Your task to perform on an android device: clear history in the chrome app Image 0: 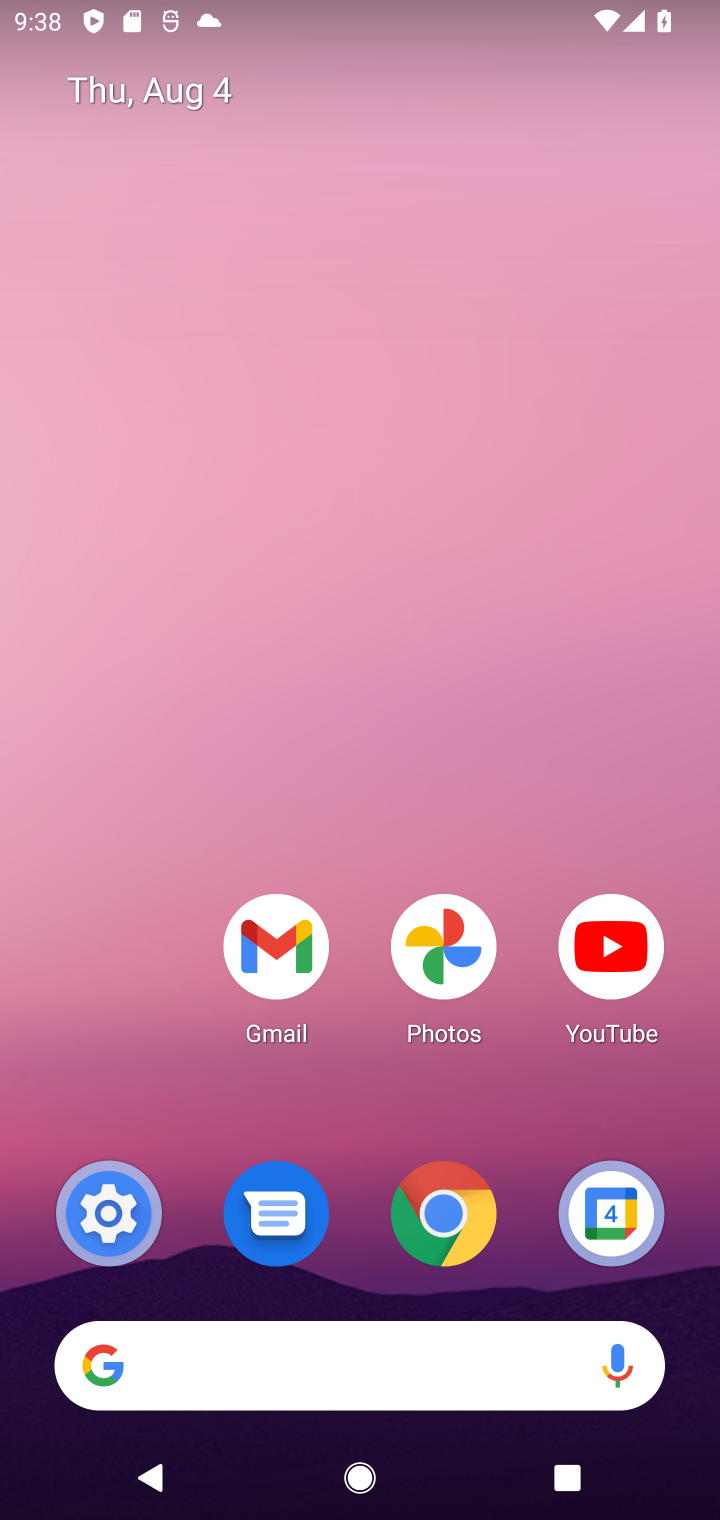
Step 0: drag from (347, 1103) to (455, 14)
Your task to perform on an android device: clear history in the chrome app Image 1: 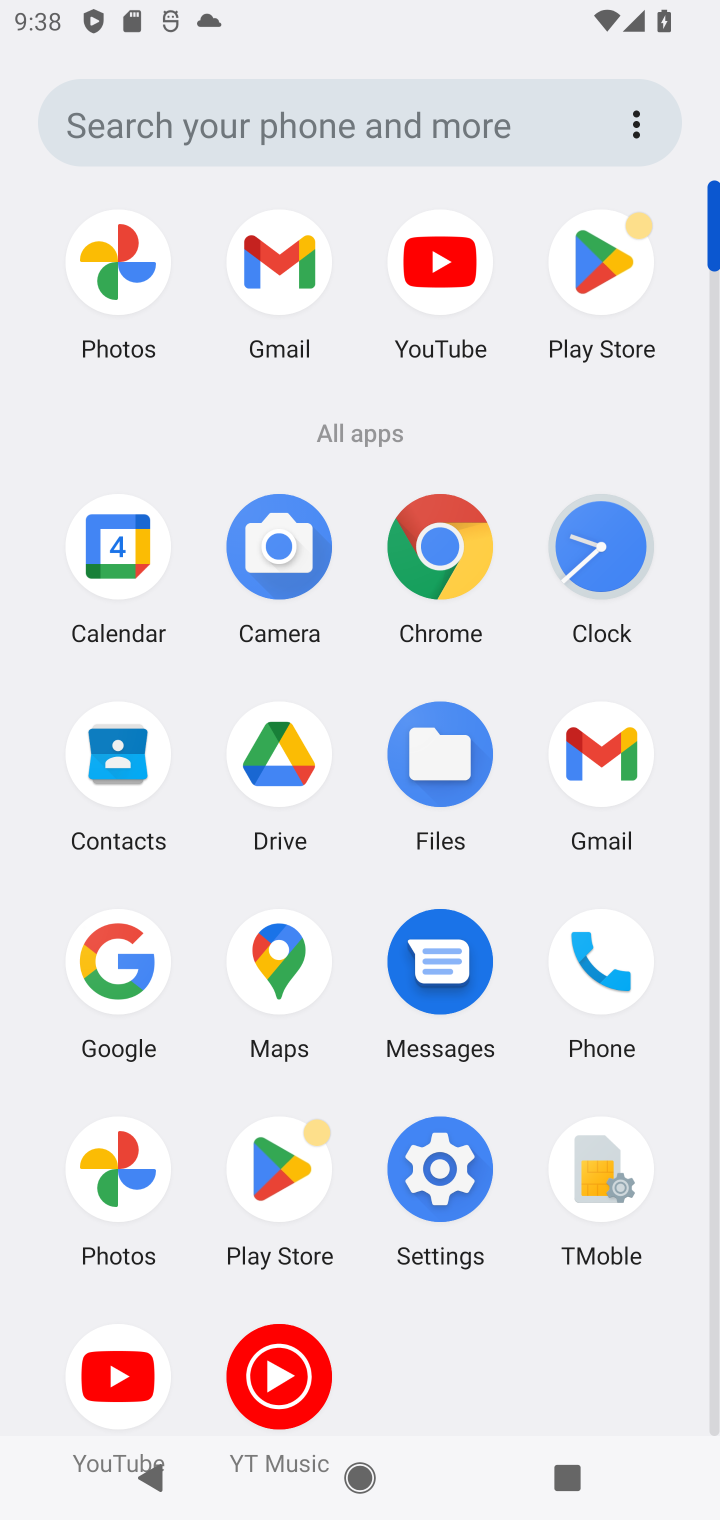
Step 1: click (434, 529)
Your task to perform on an android device: clear history in the chrome app Image 2: 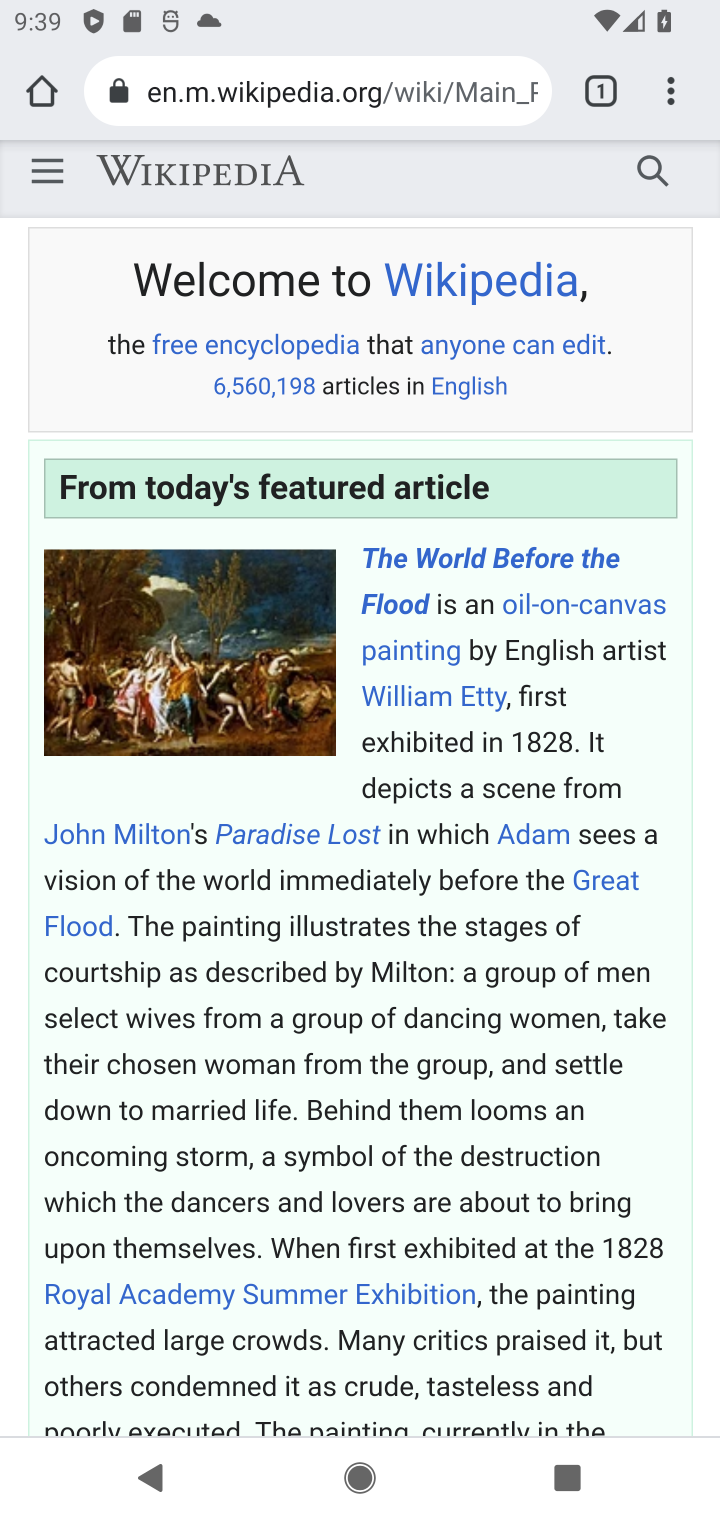
Step 2: click (686, 79)
Your task to perform on an android device: clear history in the chrome app Image 3: 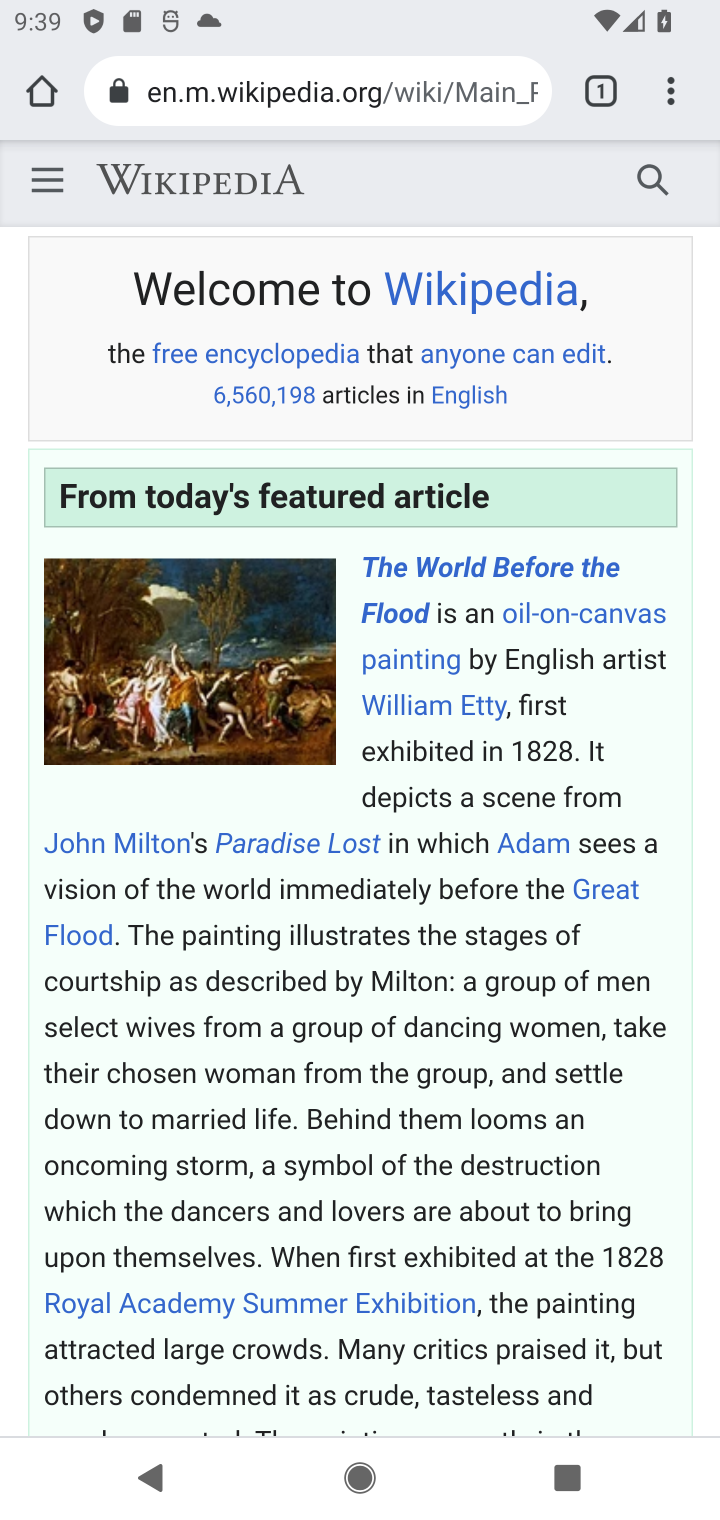
Step 3: click (672, 90)
Your task to perform on an android device: clear history in the chrome app Image 4: 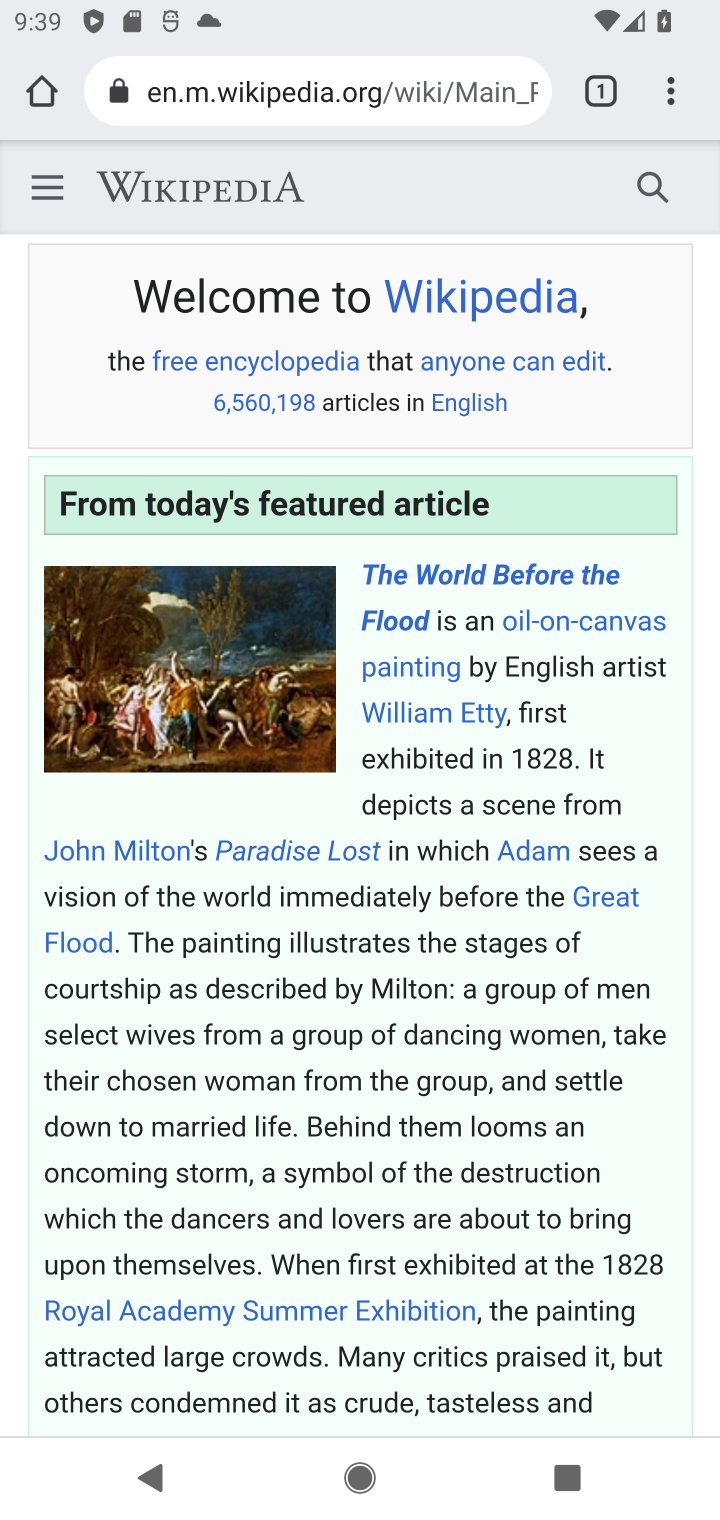
Step 4: click (670, 84)
Your task to perform on an android device: clear history in the chrome app Image 5: 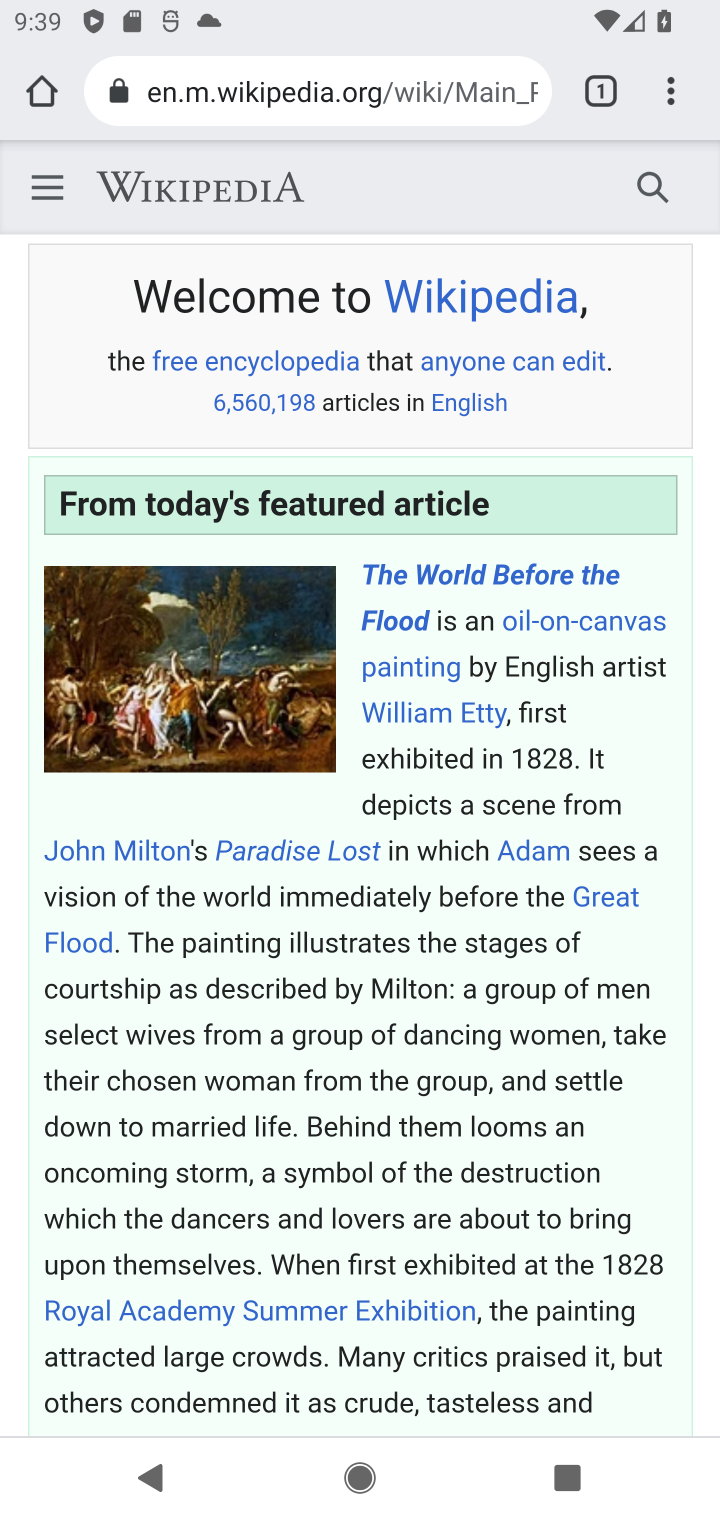
Step 5: click (676, 90)
Your task to perform on an android device: clear history in the chrome app Image 6: 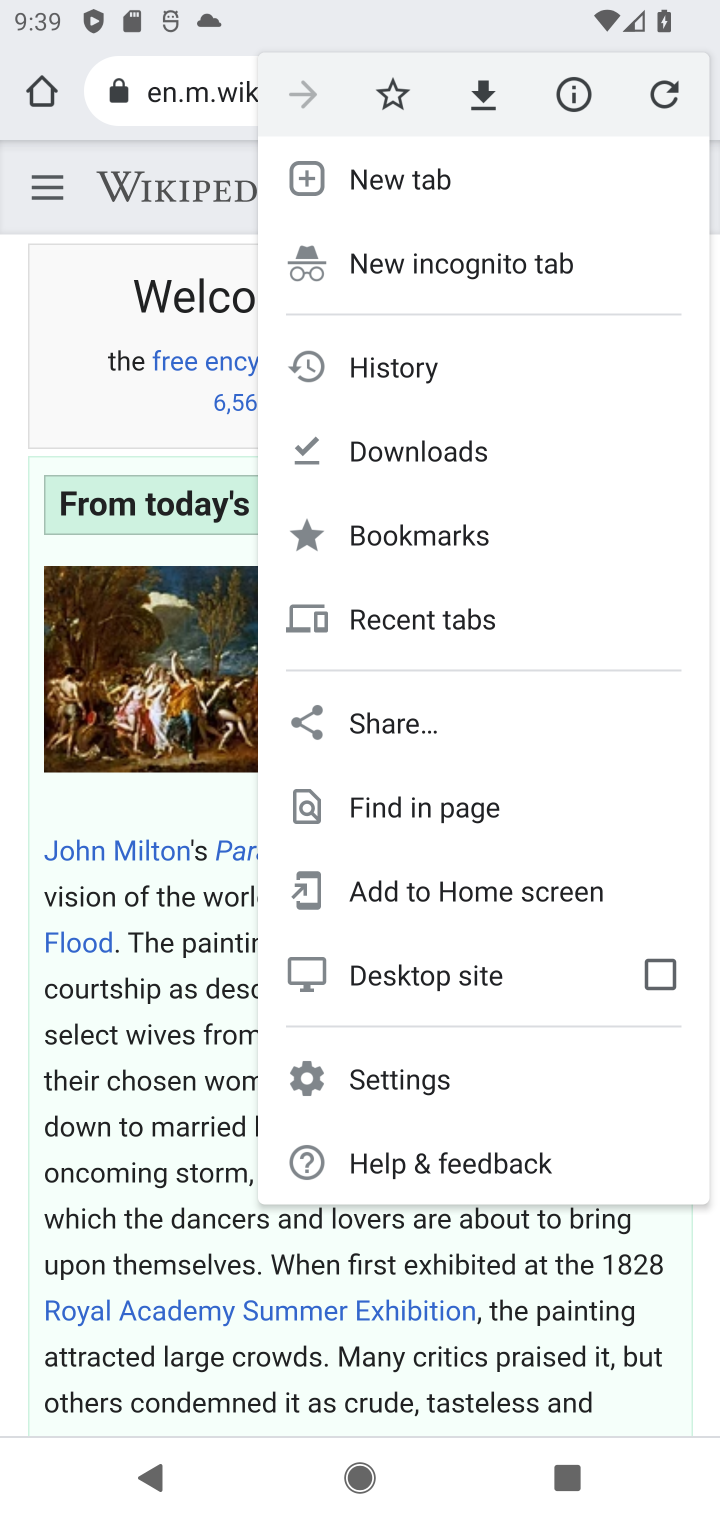
Step 6: click (428, 359)
Your task to perform on an android device: clear history in the chrome app Image 7: 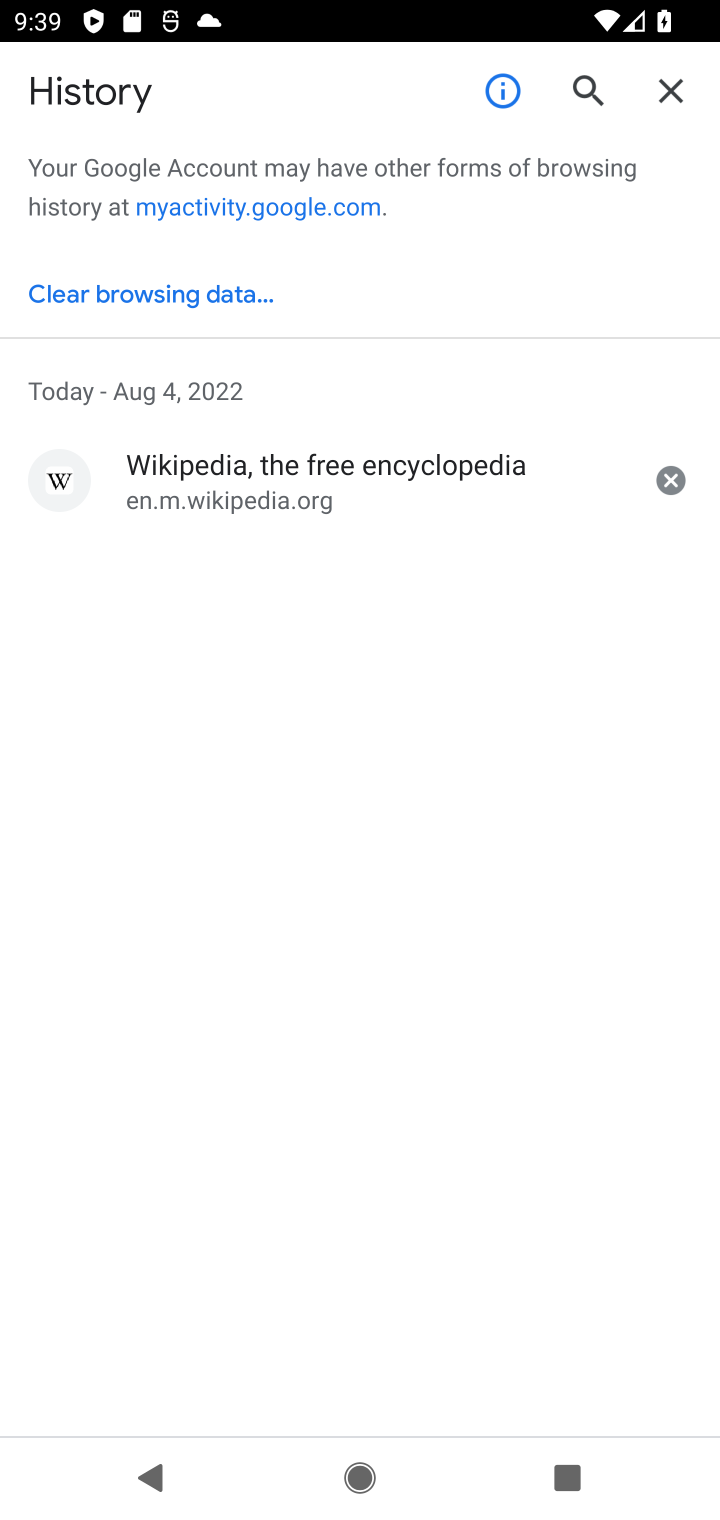
Step 7: click (153, 290)
Your task to perform on an android device: clear history in the chrome app Image 8: 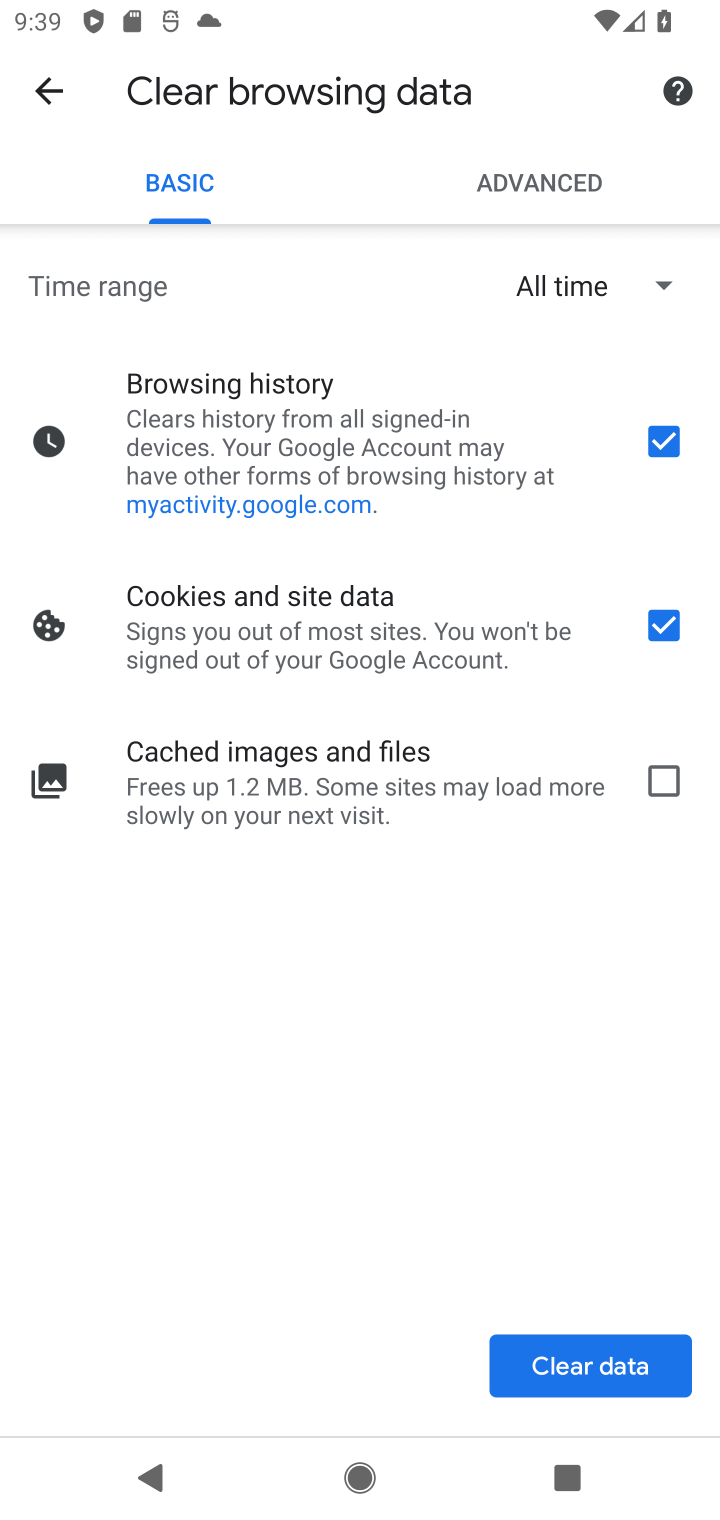
Step 8: click (668, 793)
Your task to perform on an android device: clear history in the chrome app Image 9: 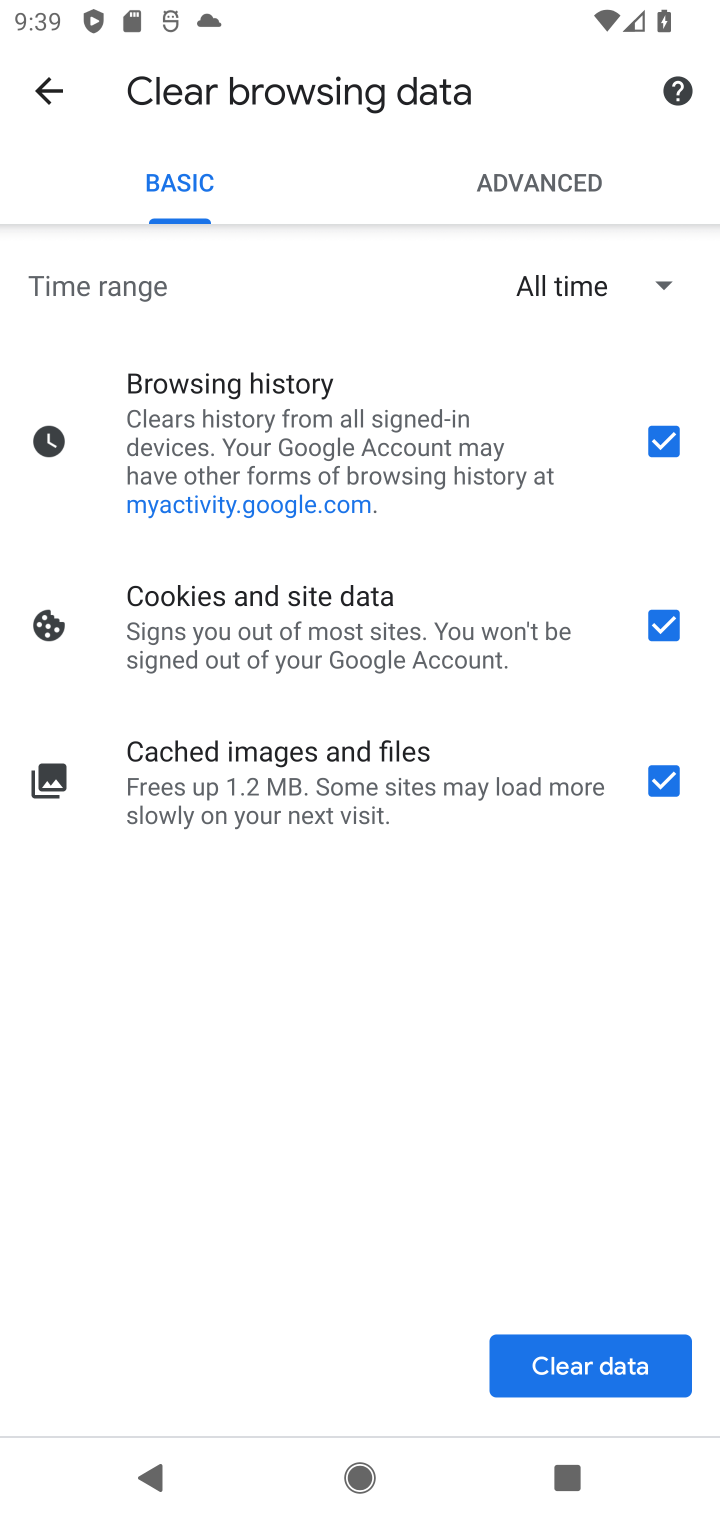
Step 9: click (574, 1361)
Your task to perform on an android device: clear history in the chrome app Image 10: 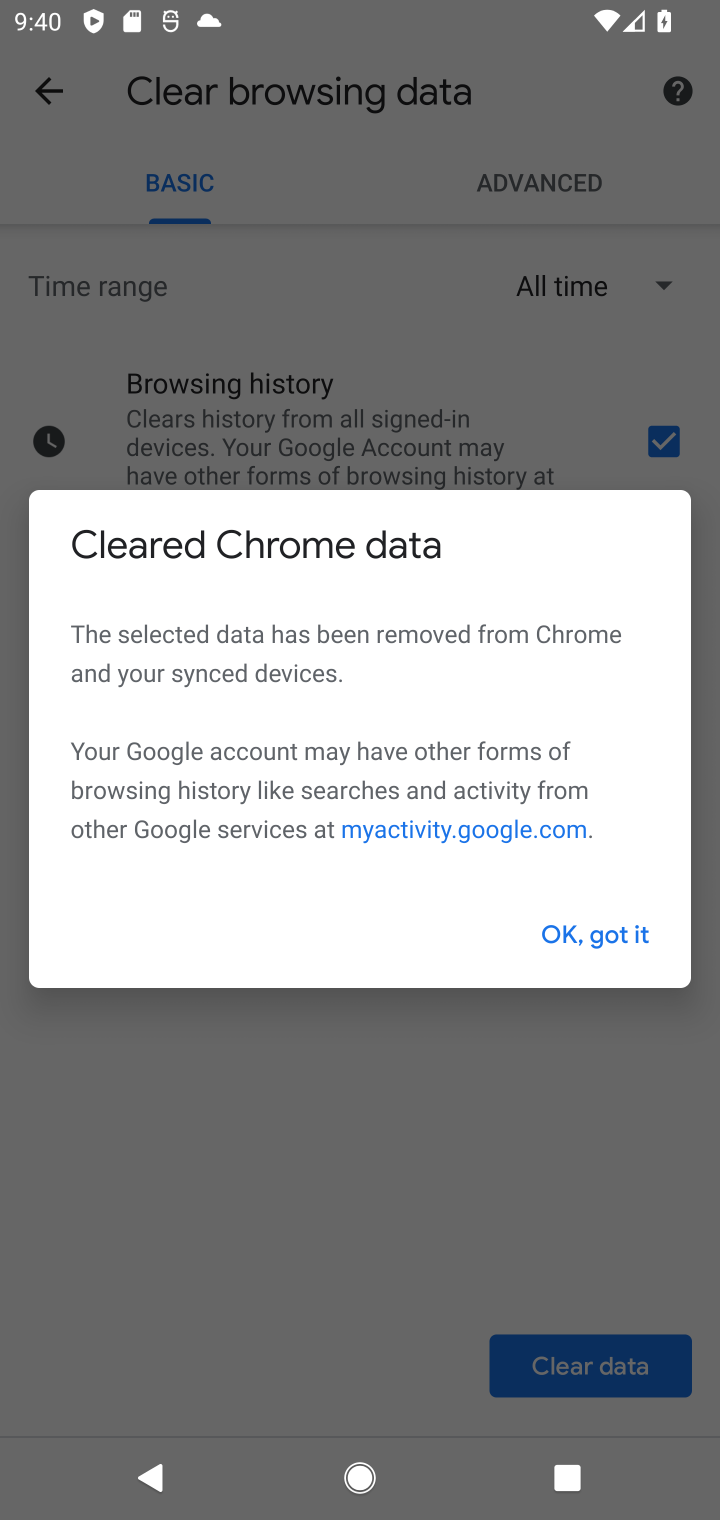
Step 10: click (612, 934)
Your task to perform on an android device: clear history in the chrome app Image 11: 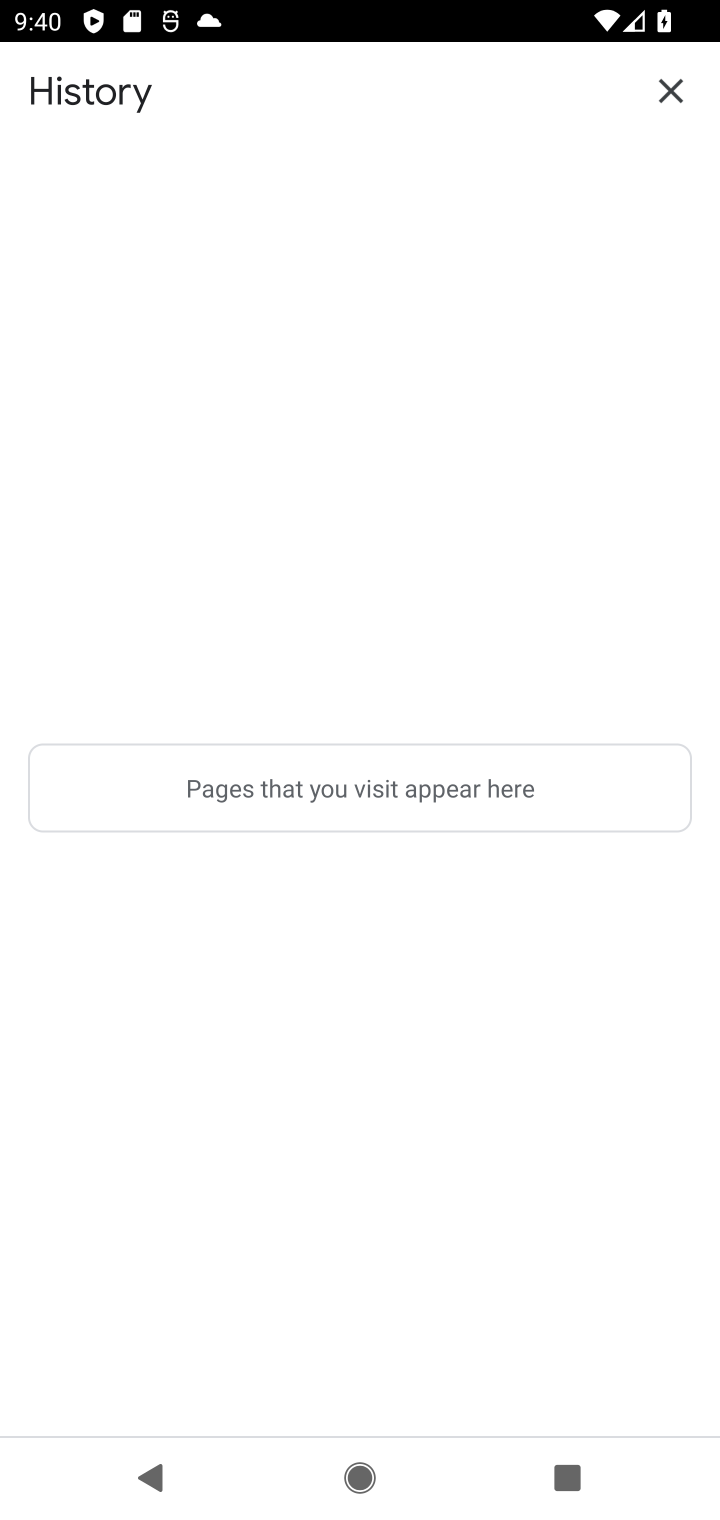
Step 11: task complete